Your task to perform on an android device: Open accessibility settings Image 0: 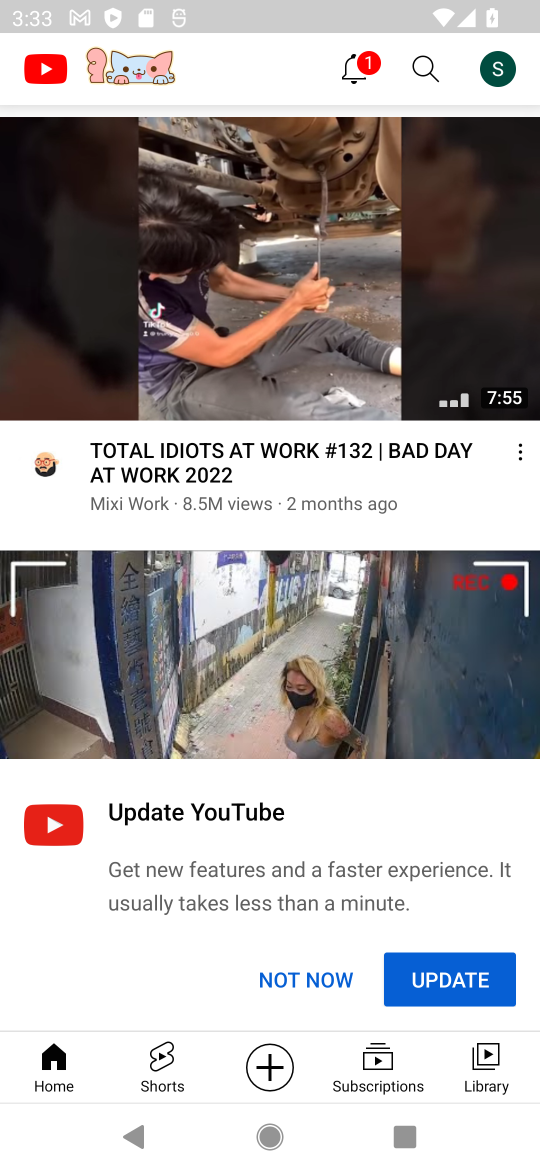
Step 0: press home button
Your task to perform on an android device: Open accessibility settings Image 1: 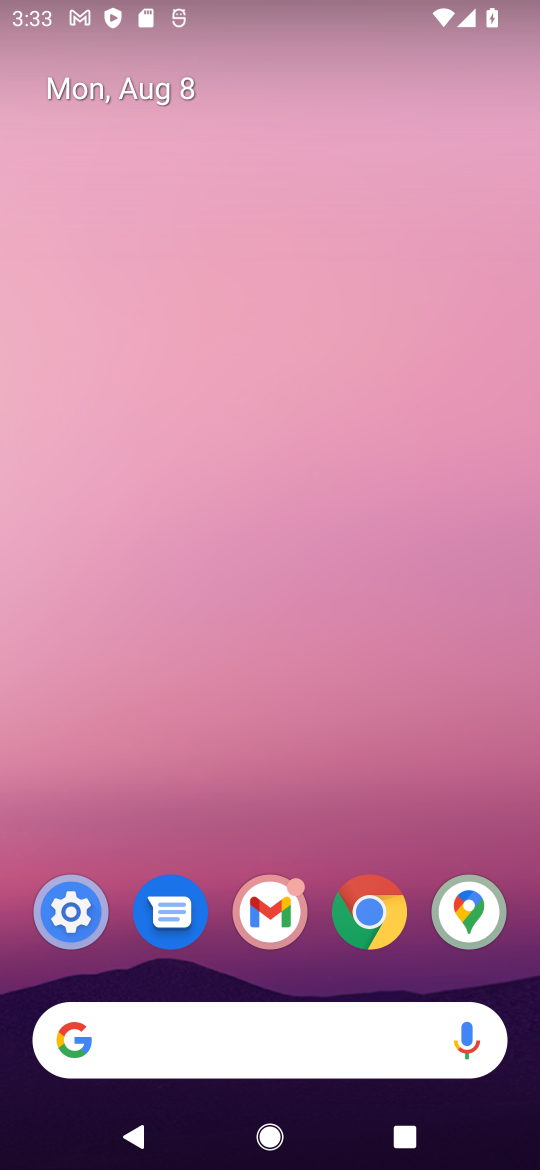
Step 1: drag from (102, 875) to (412, 87)
Your task to perform on an android device: Open accessibility settings Image 2: 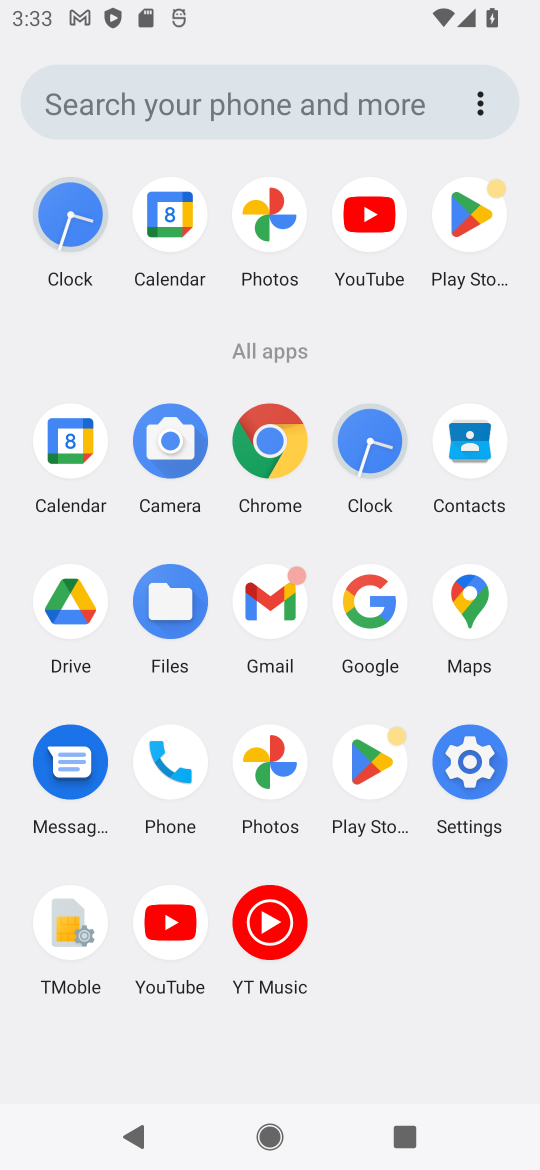
Step 2: click (483, 756)
Your task to perform on an android device: Open accessibility settings Image 3: 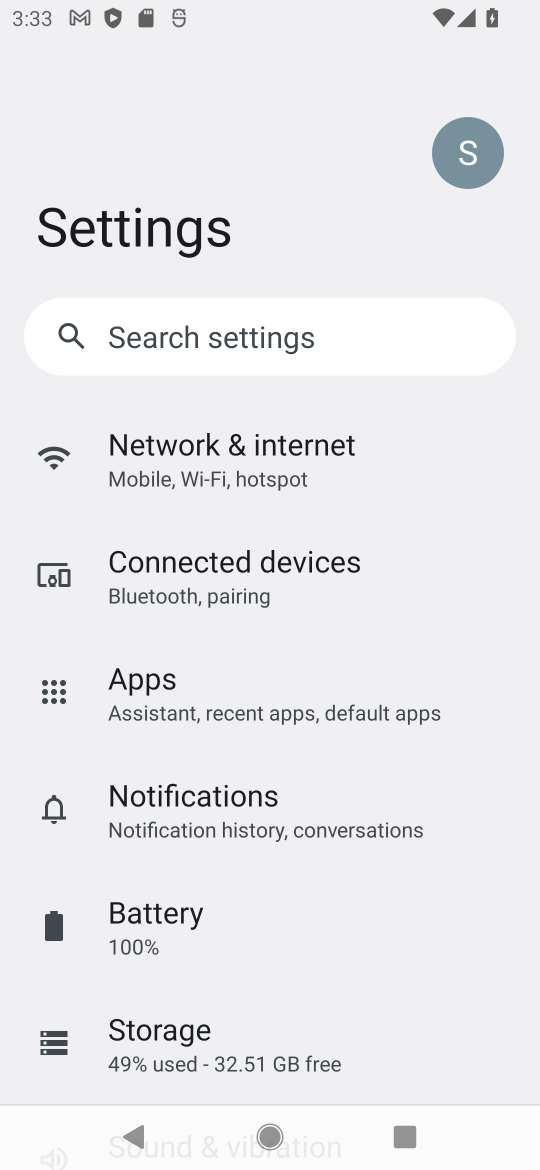
Step 3: drag from (34, 1015) to (321, 249)
Your task to perform on an android device: Open accessibility settings Image 4: 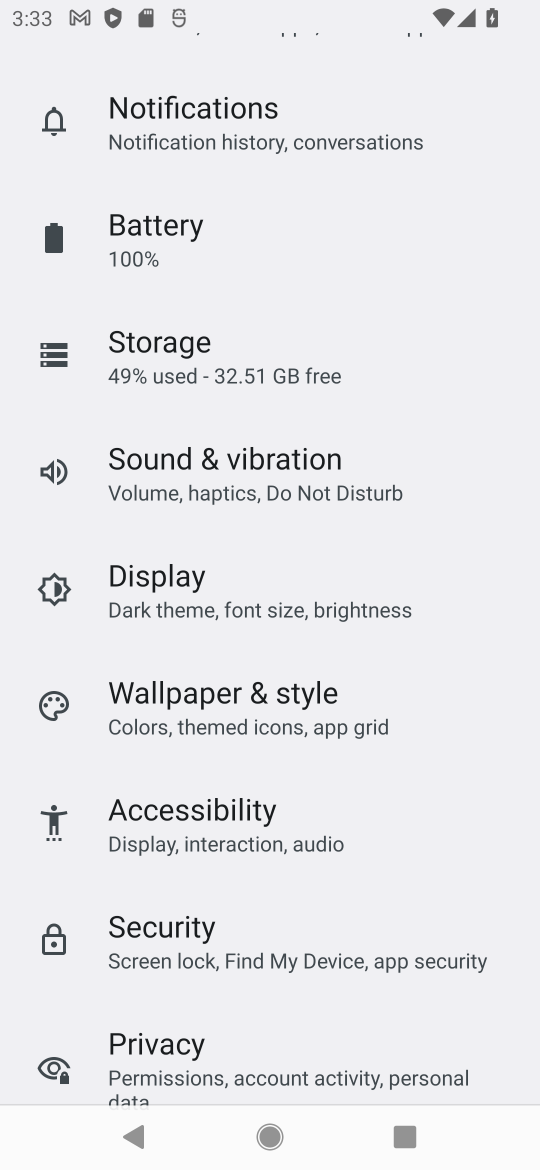
Step 4: click (314, 823)
Your task to perform on an android device: Open accessibility settings Image 5: 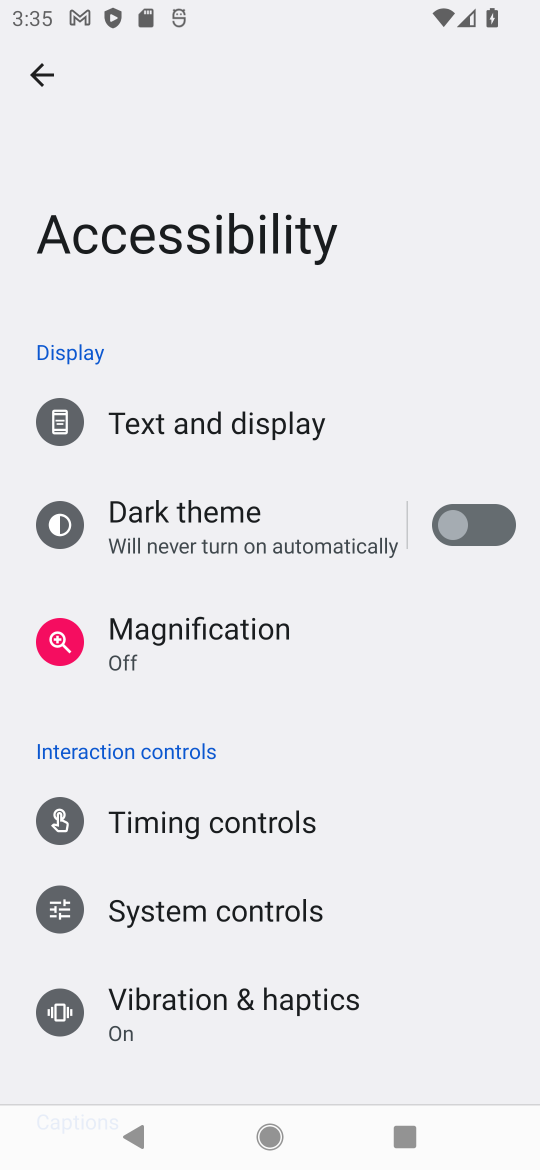
Step 5: task complete